Your task to perform on an android device: Turn on the flashlight Image 0: 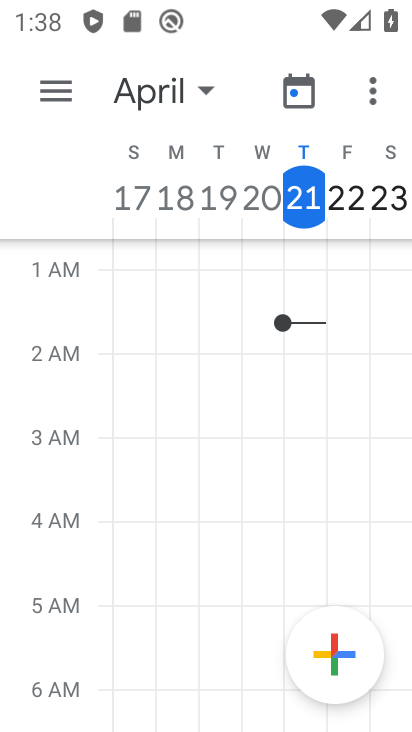
Step 0: press home button
Your task to perform on an android device: Turn on the flashlight Image 1: 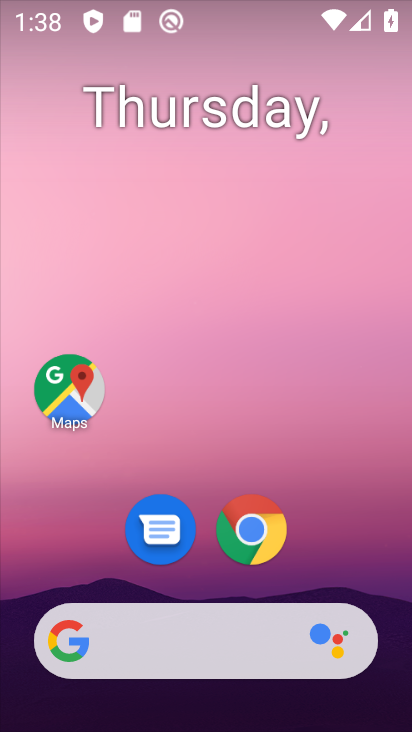
Step 1: drag from (206, 722) to (182, 188)
Your task to perform on an android device: Turn on the flashlight Image 2: 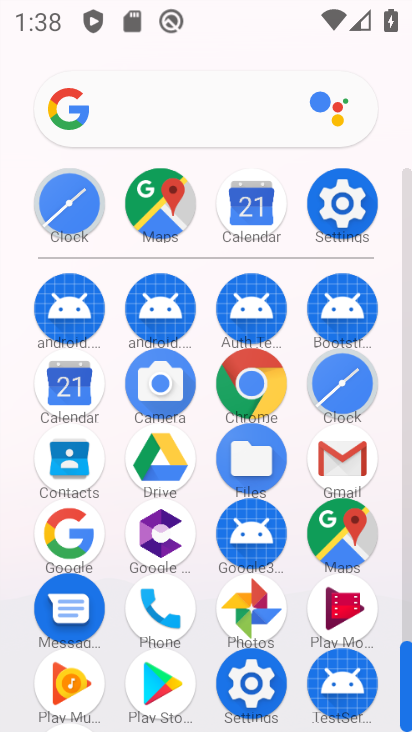
Step 2: click (342, 206)
Your task to perform on an android device: Turn on the flashlight Image 3: 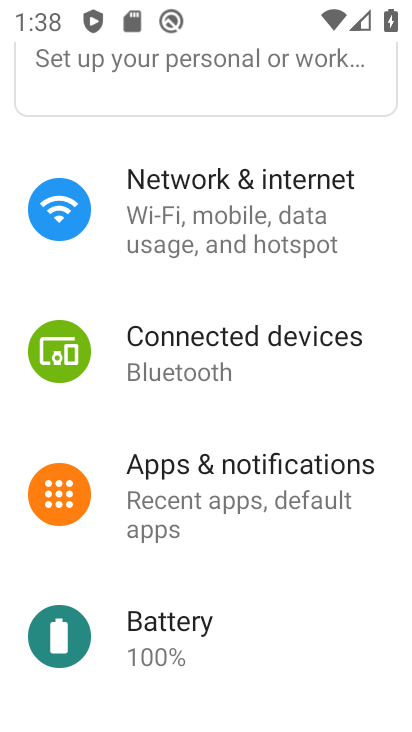
Step 3: task complete